Your task to perform on an android device: Open privacy settings Image 0: 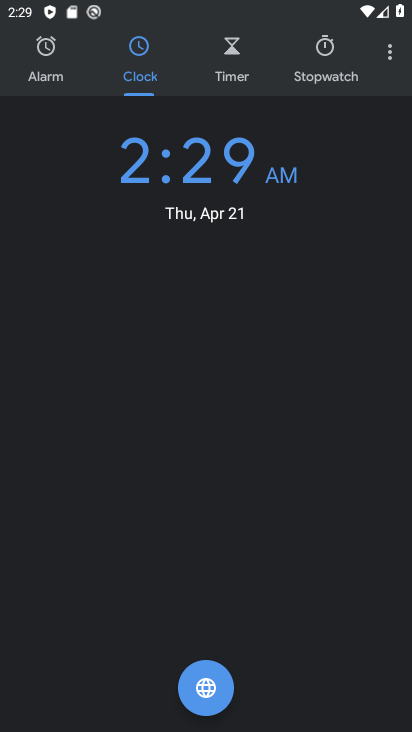
Step 0: press home button
Your task to perform on an android device: Open privacy settings Image 1: 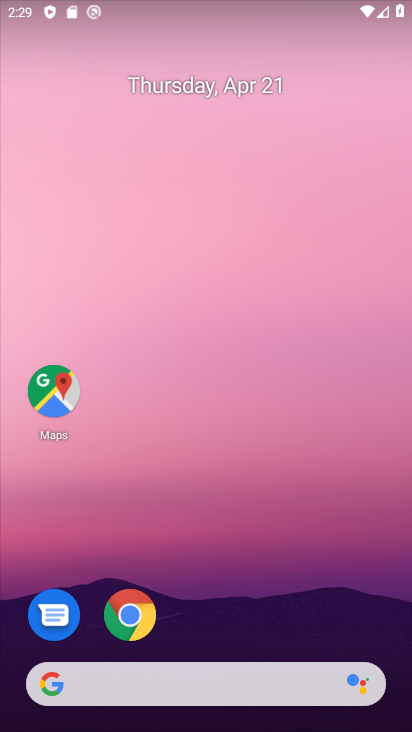
Step 1: drag from (319, 605) to (281, 64)
Your task to perform on an android device: Open privacy settings Image 2: 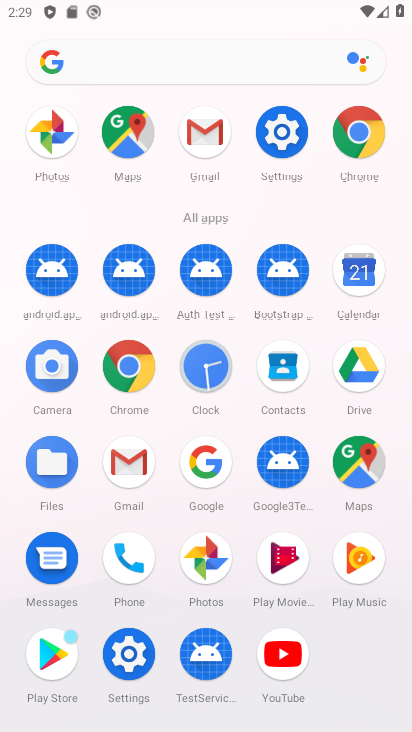
Step 2: click (129, 649)
Your task to perform on an android device: Open privacy settings Image 3: 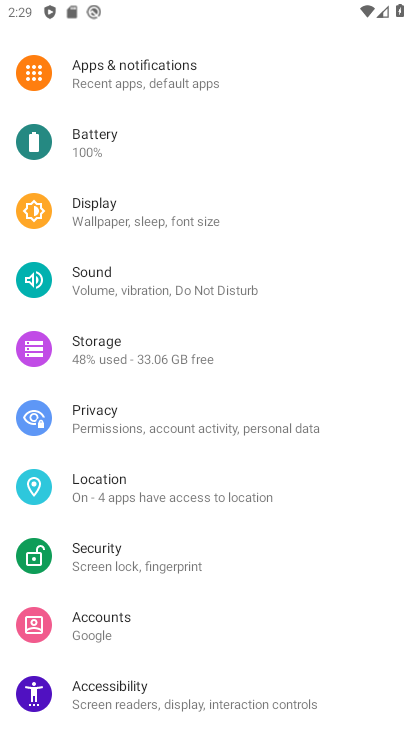
Step 3: click (85, 428)
Your task to perform on an android device: Open privacy settings Image 4: 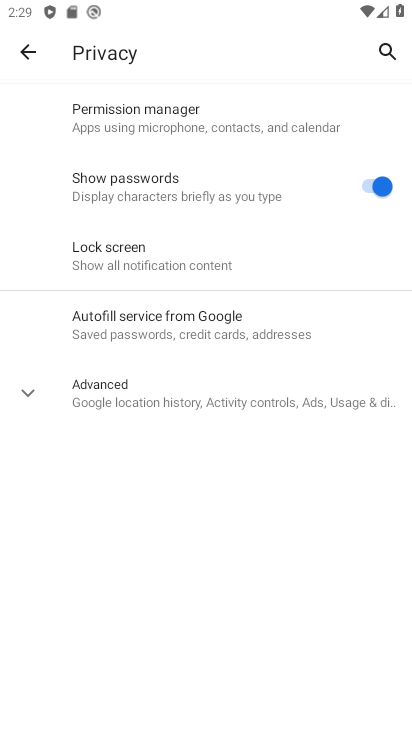
Step 4: task complete